Your task to perform on an android device: turn off improve location accuracy Image 0: 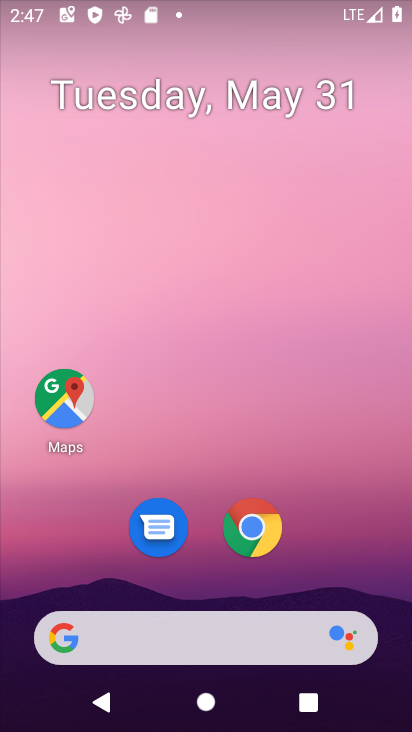
Step 0: drag from (330, 546) to (365, 120)
Your task to perform on an android device: turn off improve location accuracy Image 1: 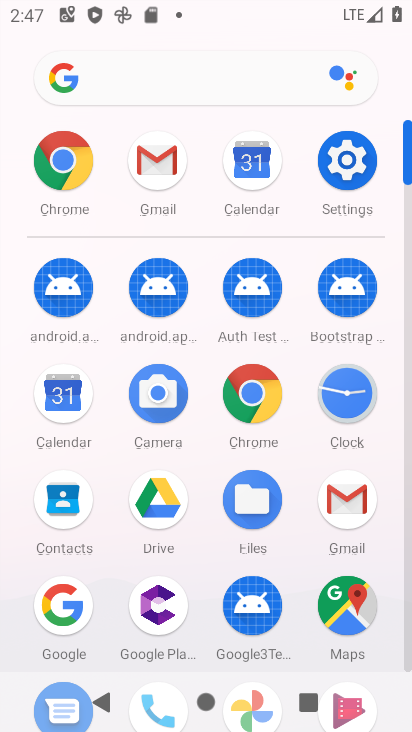
Step 1: click (332, 173)
Your task to perform on an android device: turn off improve location accuracy Image 2: 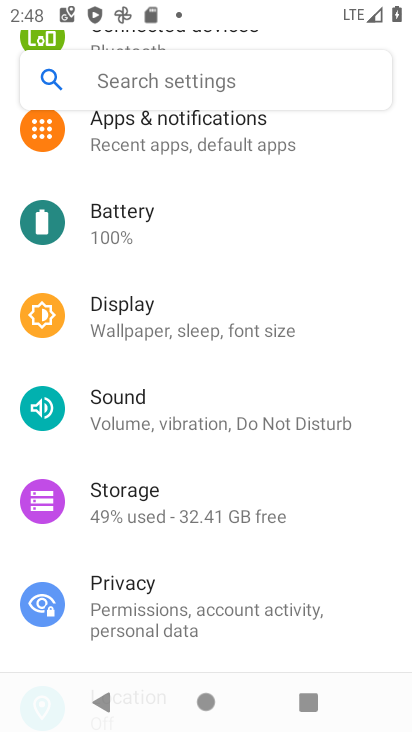
Step 2: drag from (189, 247) to (193, 581)
Your task to perform on an android device: turn off improve location accuracy Image 3: 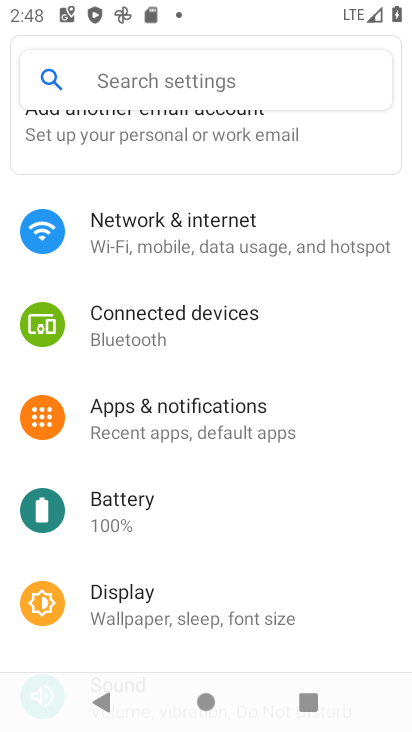
Step 3: drag from (193, 571) to (223, 242)
Your task to perform on an android device: turn off improve location accuracy Image 4: 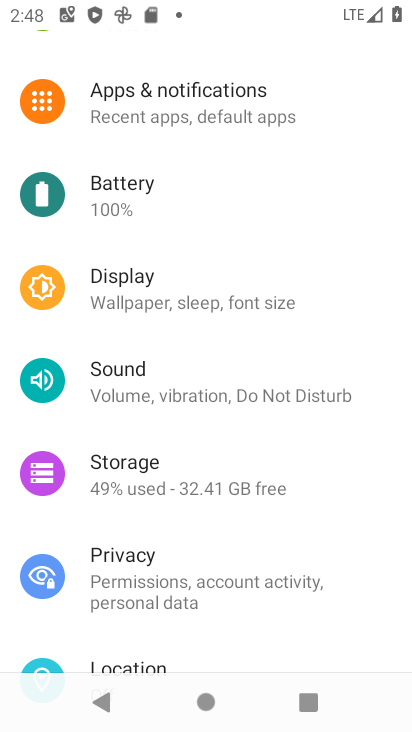
Step 4: drag from (210, 559) to (240, 231)
Your task to perform on an android device: turn off improve location accuracy Image 5: 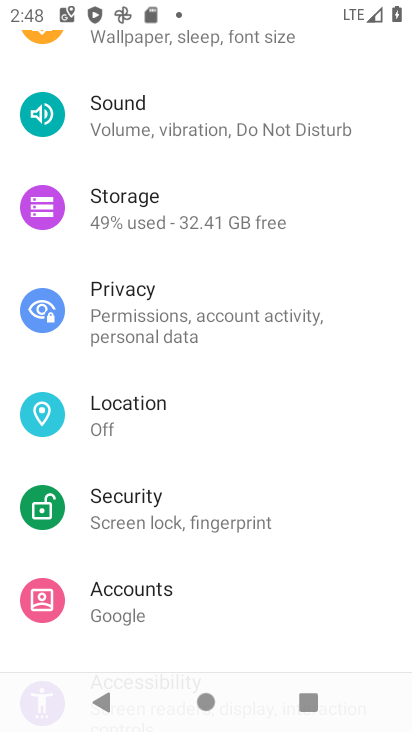
Step 5: click (109, 410)
Your task to perform on an android device: turn off improve location accuracy Image 6: 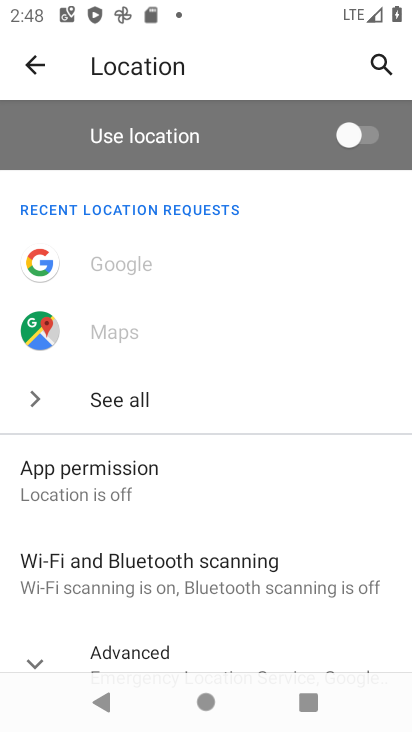
Step 6: drag from (191, 588) to (242, 194)
Your task to perform on an android device: turn off improve location accuracy Image 7: 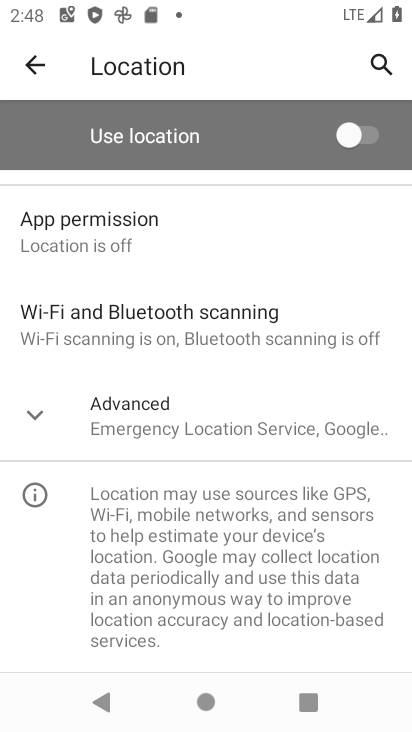
Step 7: drag from (197, 587) to (237, 279)
Your task to perform on an android device: turn off improve location accuracy Image 8: 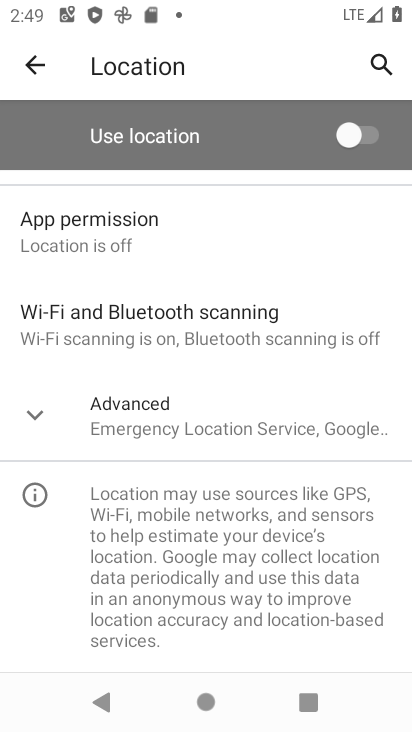
Step 8: drag from (220, 511) to (255, 191)
Your task to perform on an android device: turn off improve location accuracy Image 9: 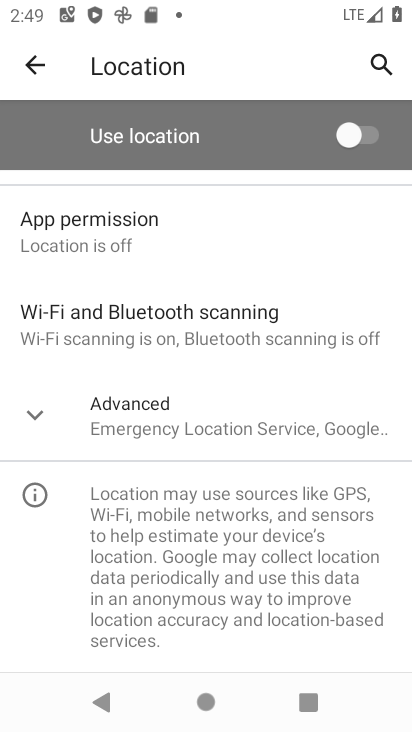
Step 9: click (190, 426)
Your task to perform on an android device: turn off improve location accuracy Image 10: 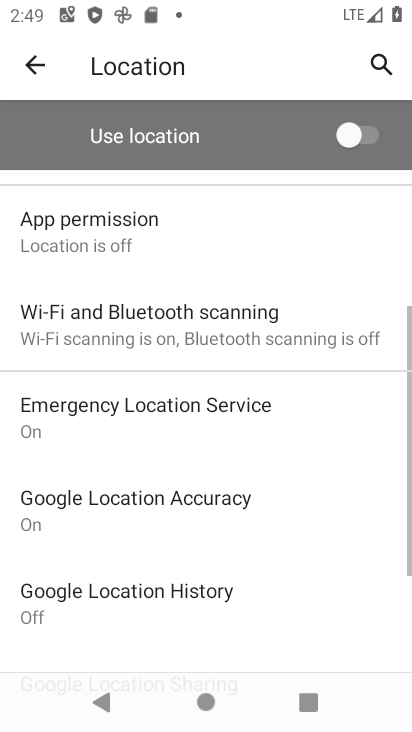
Step 10: drag from (276, 558) to (247, 220)
Your task to perform on an android device: turn off improve location accuracy Image 11: 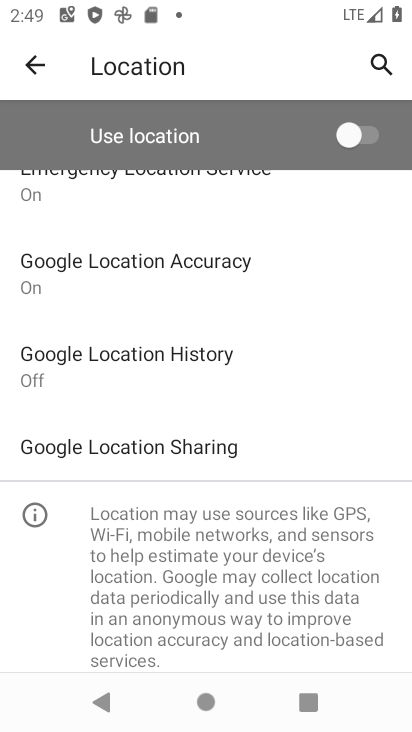
Step 11: click (185, 288)
Your task to perform on an android device: turn off improve location accuracy Image 12: 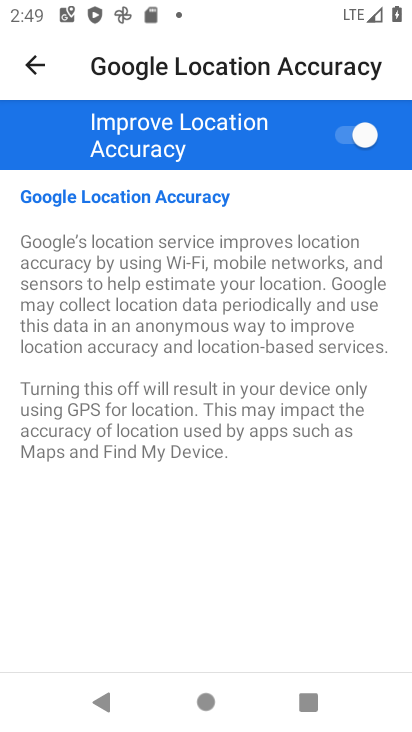
Step 12: click (363, 144)
Your task to perform on an android device: turn off improve location accuracy Image 13: 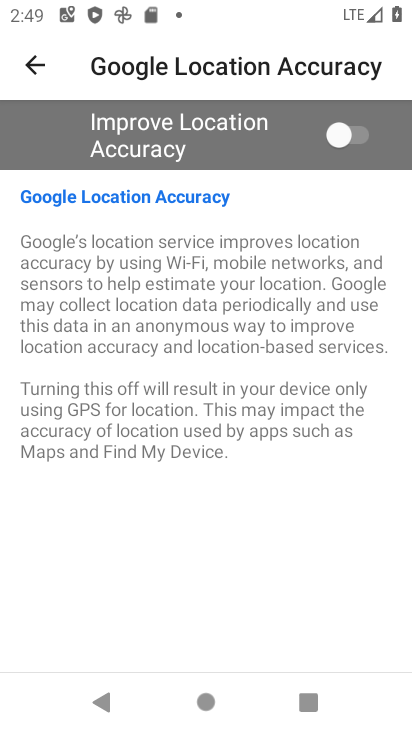
Step 13: task complete